Your task to perform on an android device: Go to Yahoo.com Image 0: 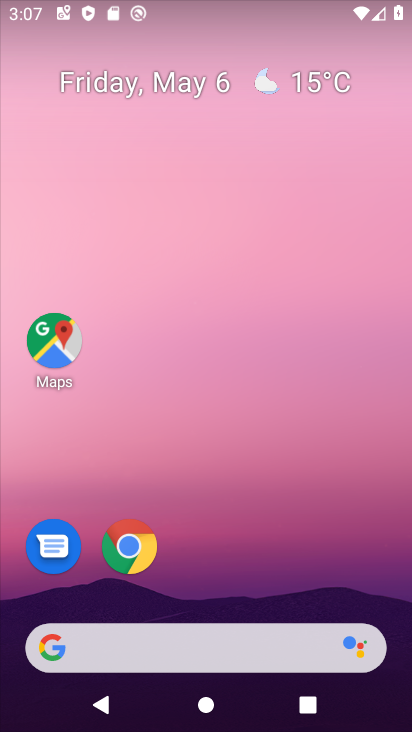
Step 0: click (119, 556)
Your task to perform on an android device: Go to Yahoo.com Image 1: 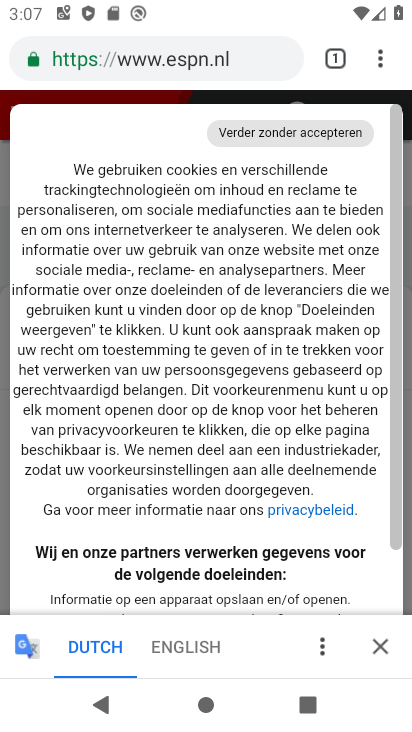
Step 1: click (166, 51)
Your task to perform on an android device: Go to Yahoo.com Image 2: 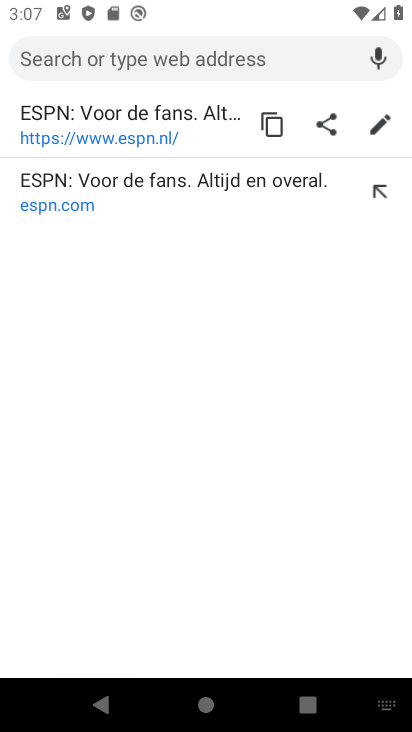
Step 2: type "yahoo.com"
Your task to perform on an android device: Go to Yahoo.com Image 3: 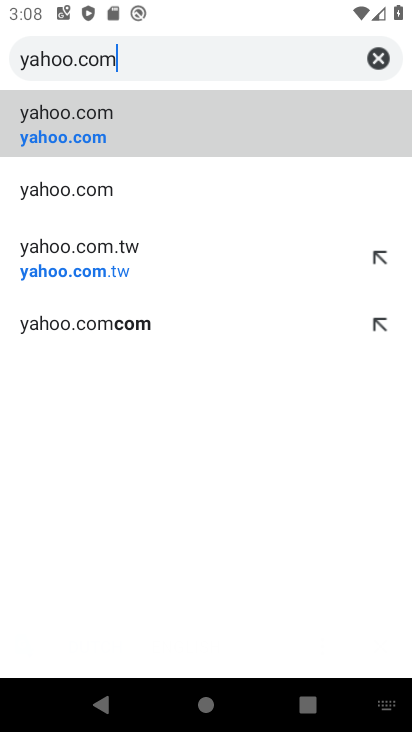
Step 3: click (67, 140)
Your task to perform on an android device: Go to Yahoo.com Image 4: 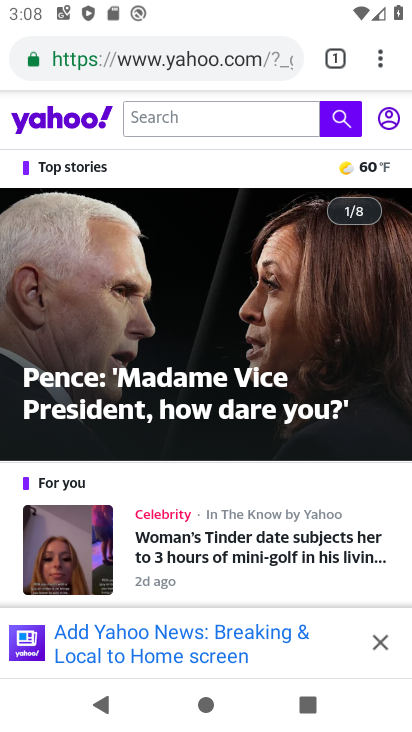
Step 4: task complete